Your task to perform on an android device: turn off notifications in google photos Image 0: 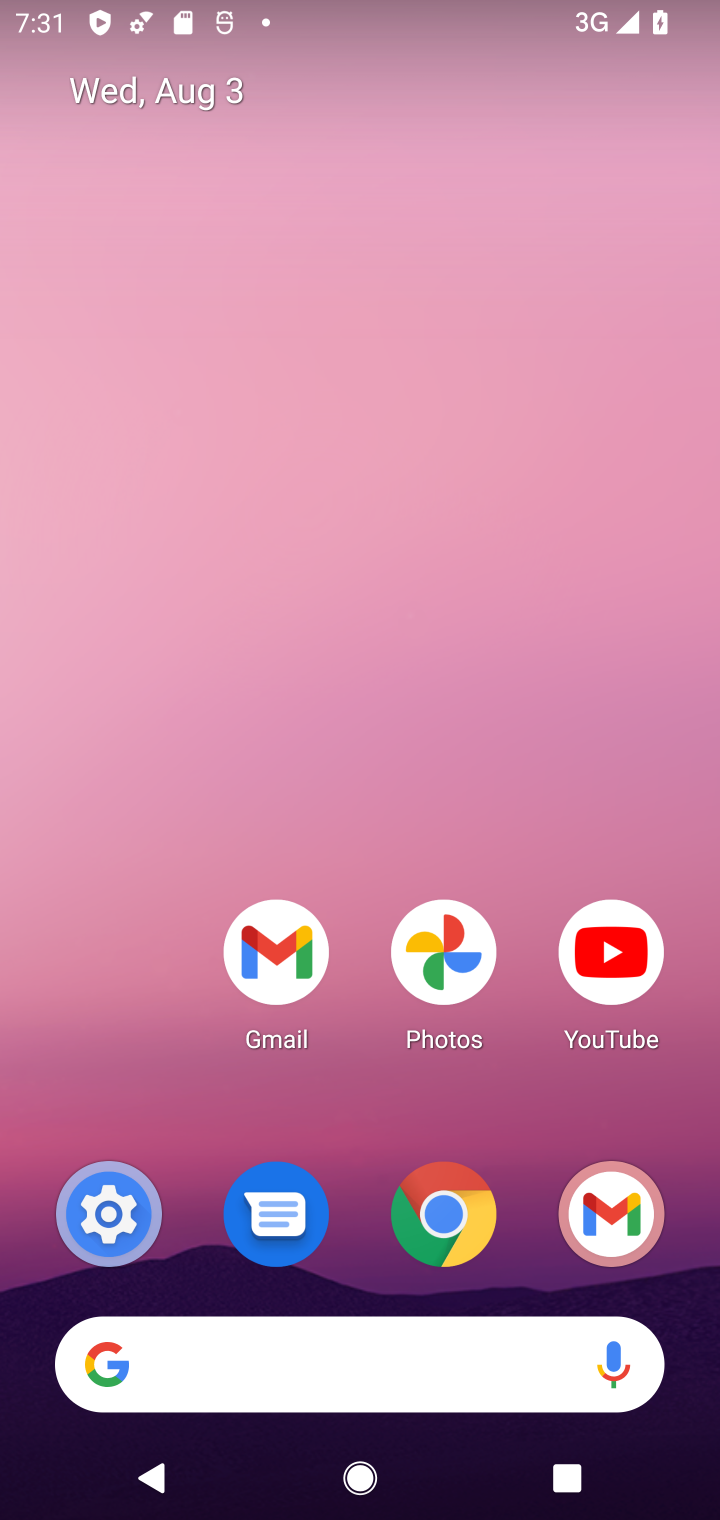
Step 0: click (454, 929)
Your task to perform on an android device: turn off notifications in google photos Image 1: 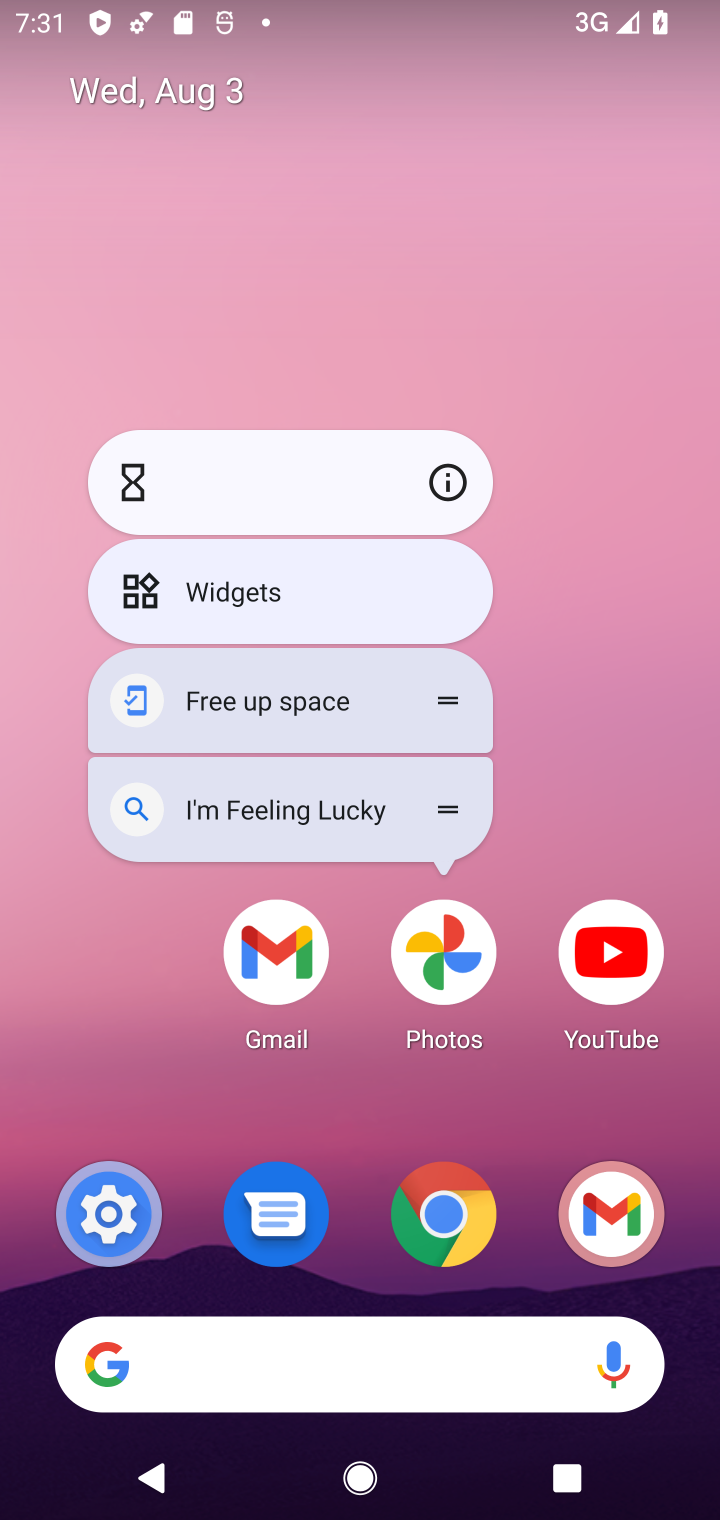
Step 1: click (451, 924)
Your task to perform on an android device: turn off notifications in google photos Image 2: 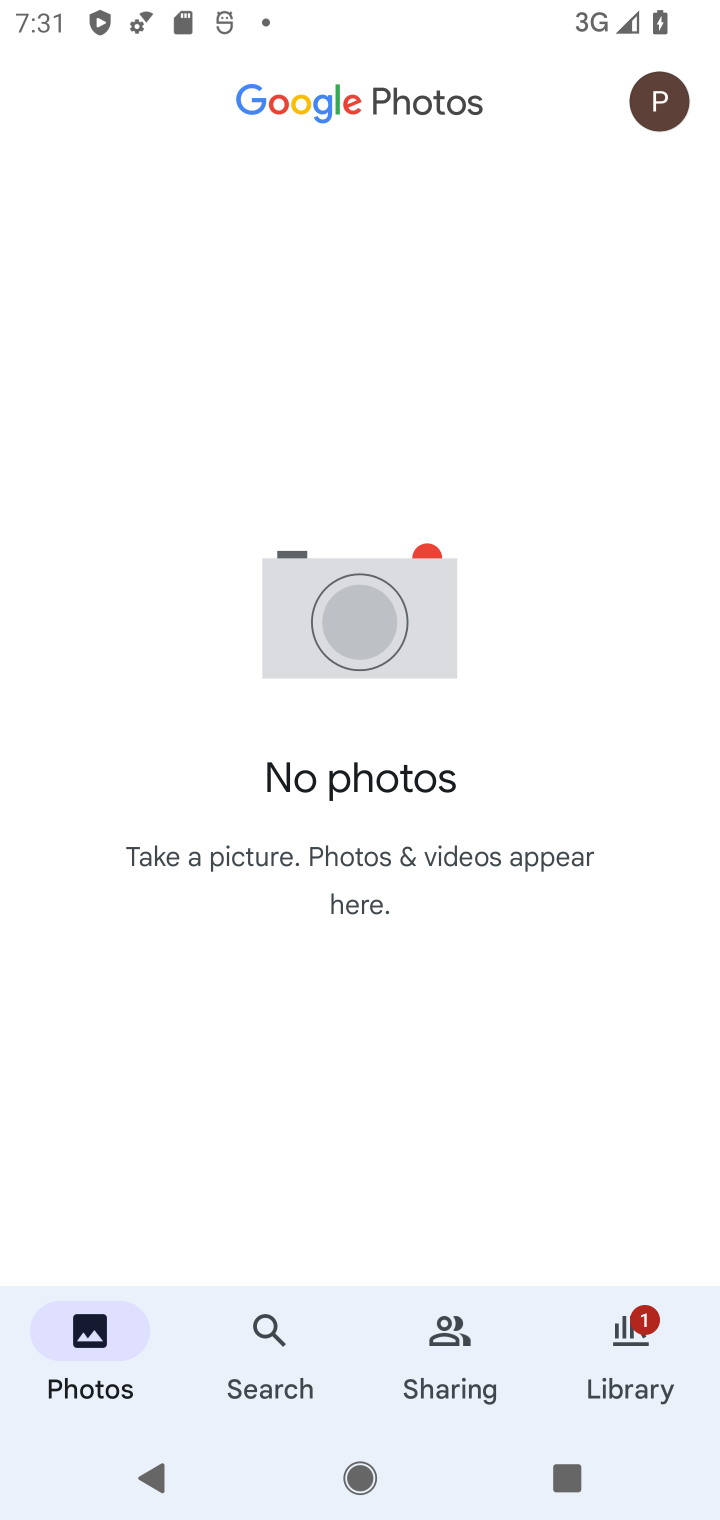
Step 2: click (666, 109)
Your task to perform on an android device: turn off notifications in google photos Image 3: 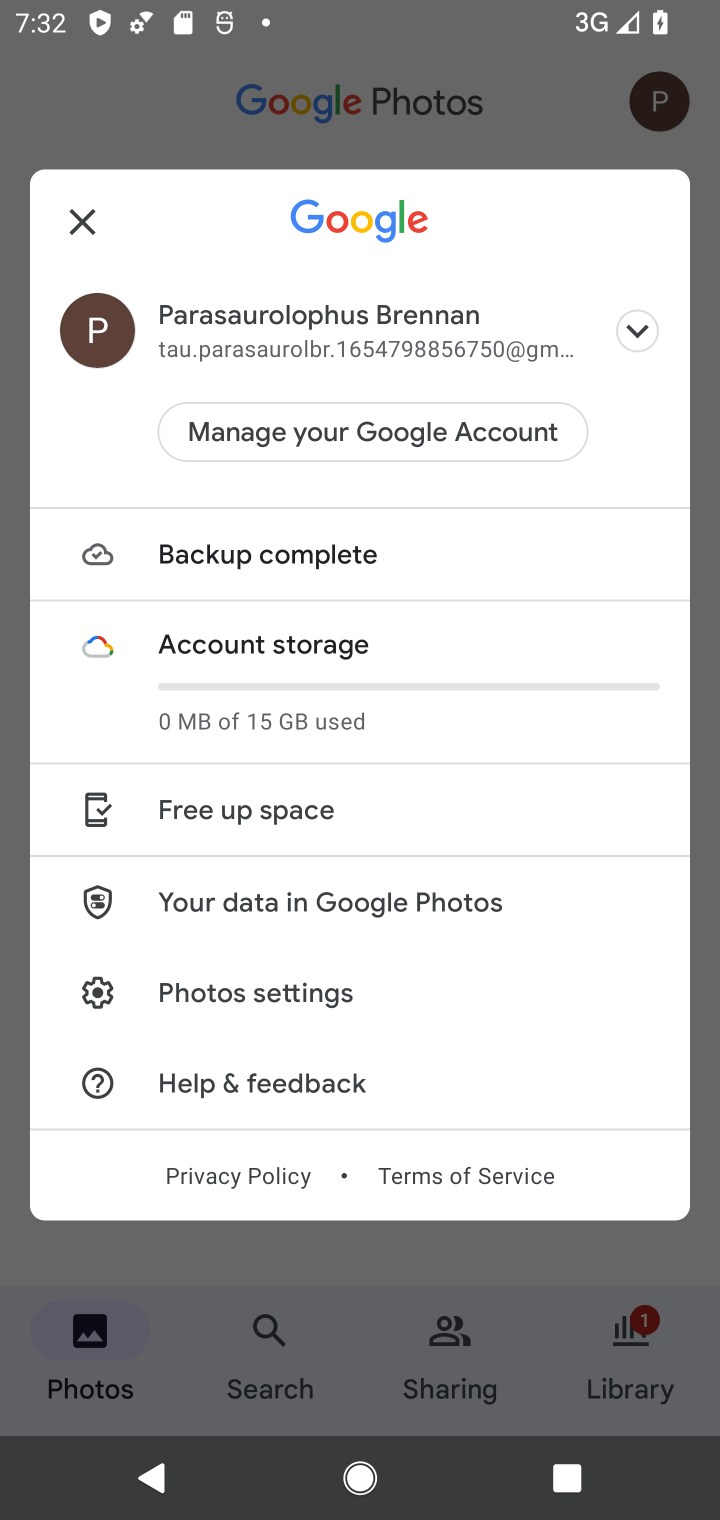
Step 3: click (222, 1019)
Your task to perform on an android device: turn off notifications in google photos Image 4: 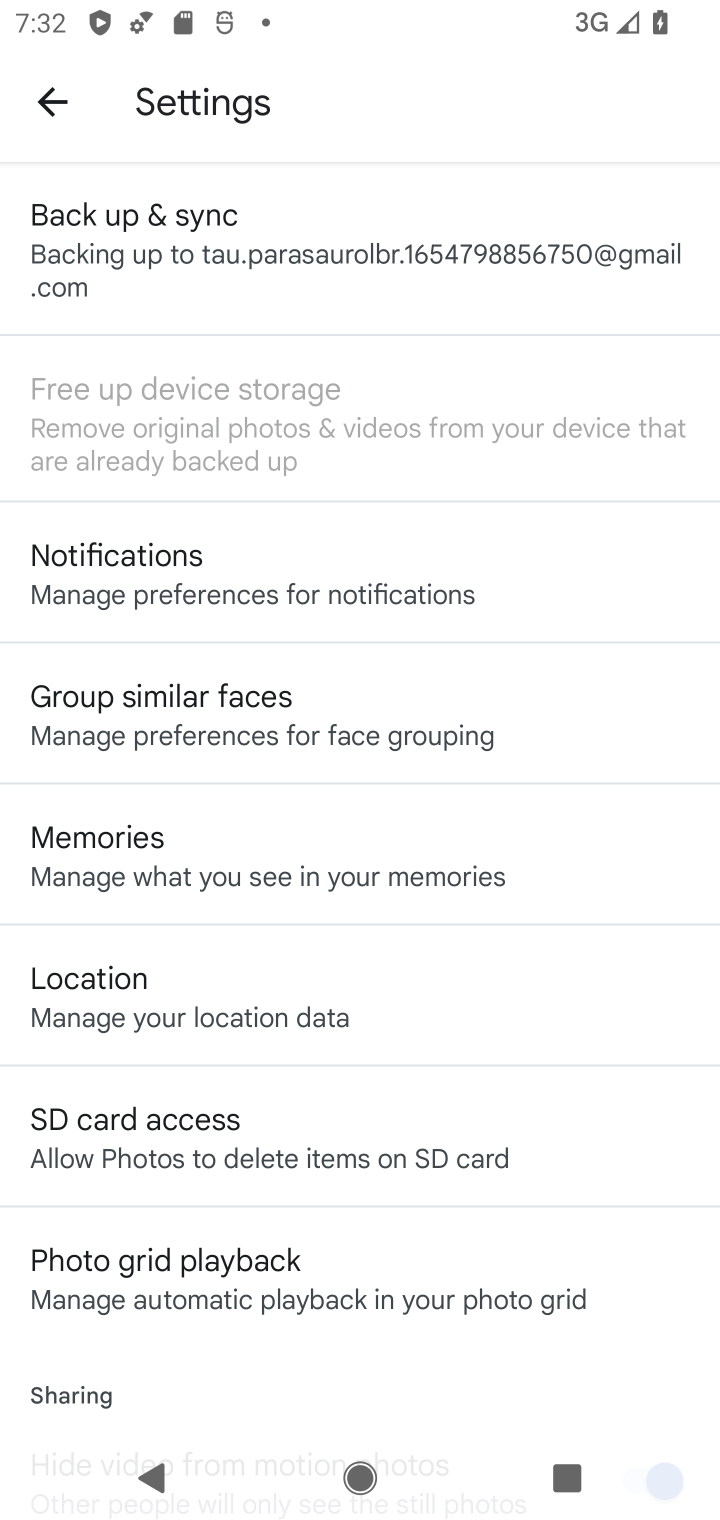
Step 4: click (263, 588)
Your task to perform on an android device: turn off notifications in google photos Image 5: 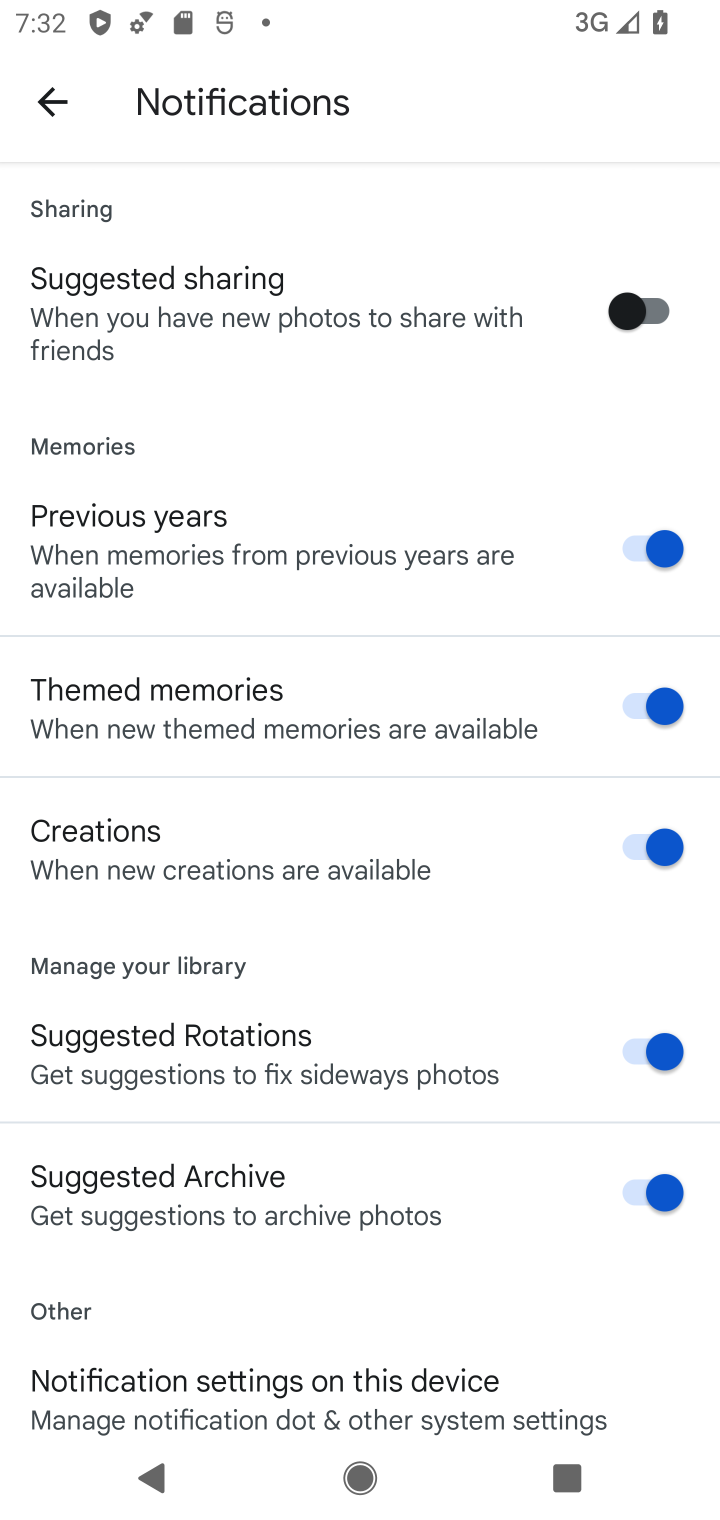
Step 5: drag from (309, 695) to (189, 17)
Your task to perform on an android device: turn off notifications in google photos Image 6: 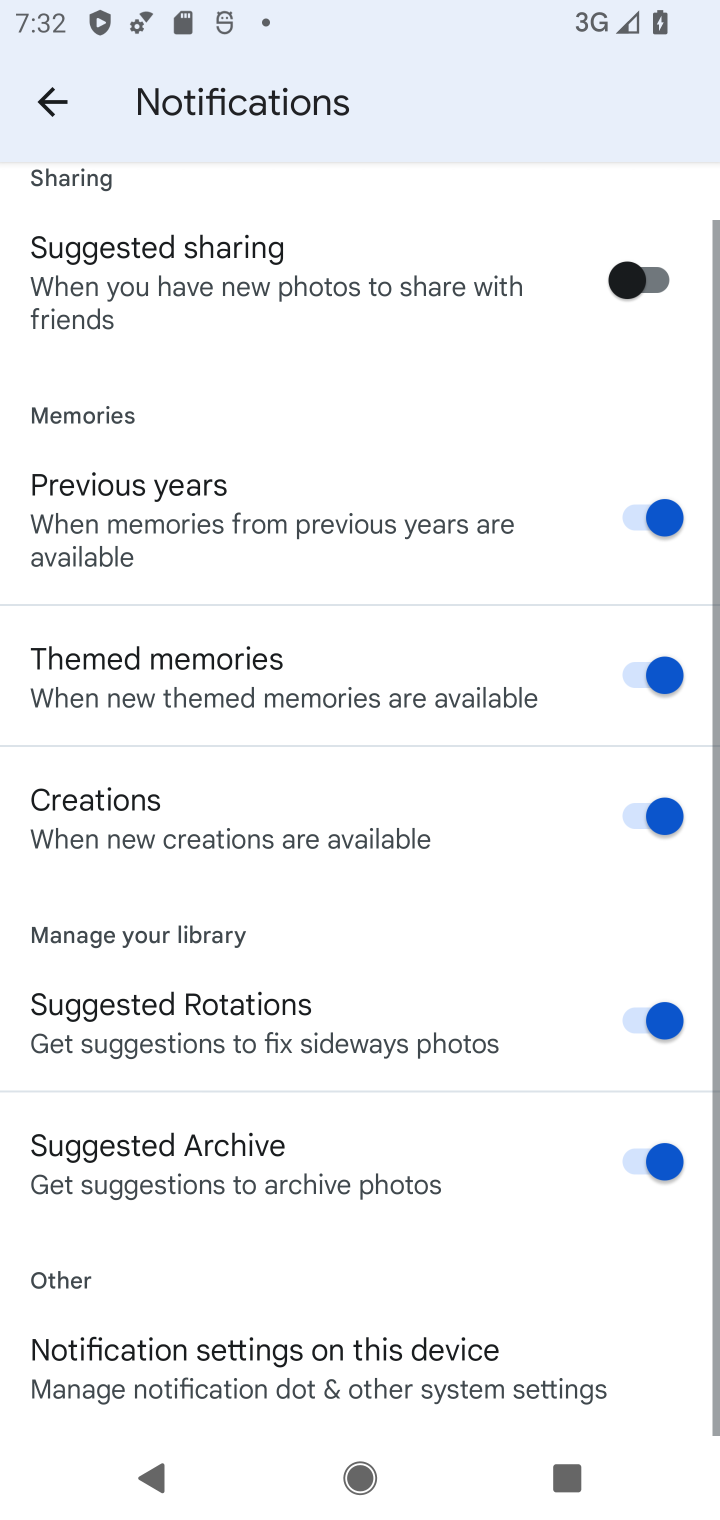
Step 6: click (190, 1339)
Your task to perform on an android device: turn off notifications in google photos Image 7: 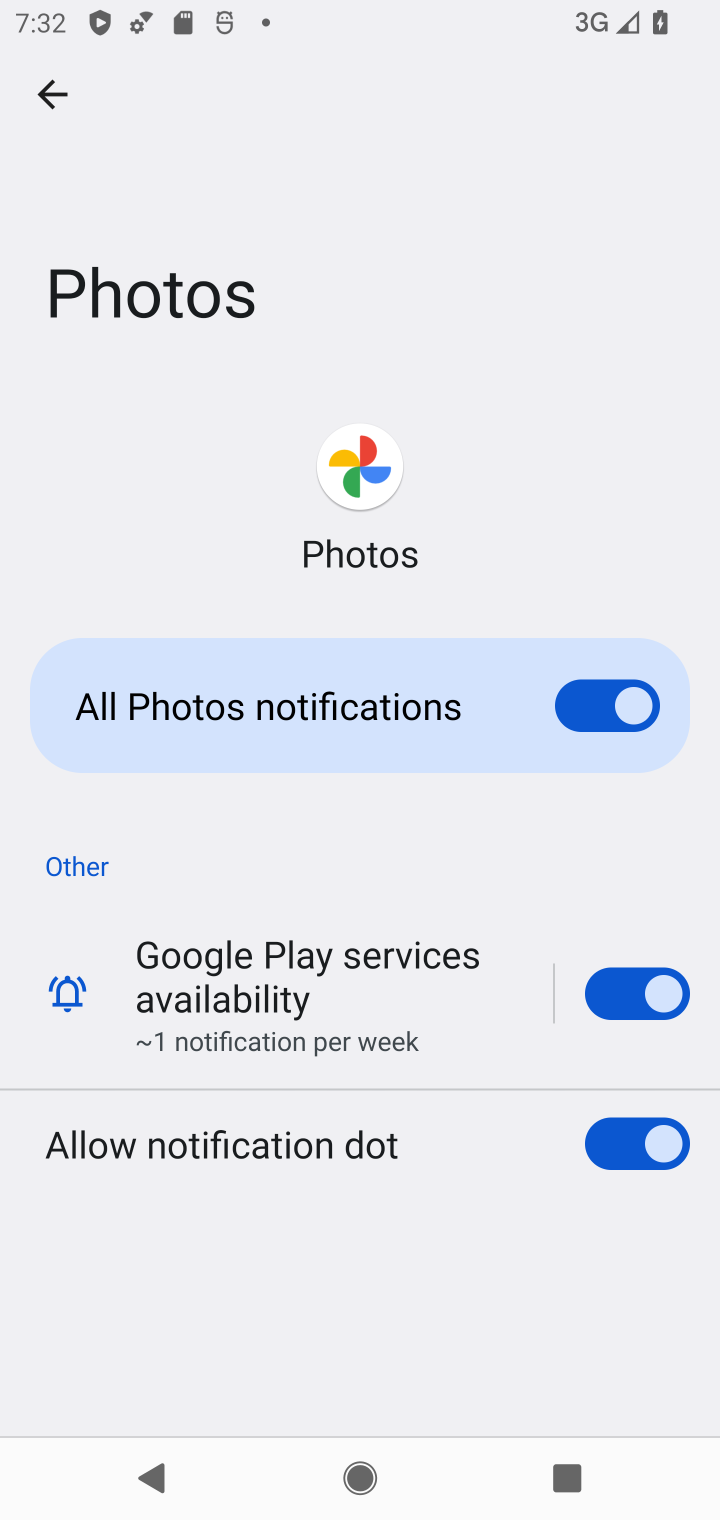
Step 7: click (624, 722)
Your task to perform on an android device: turn off notifications in google photos Image 8: 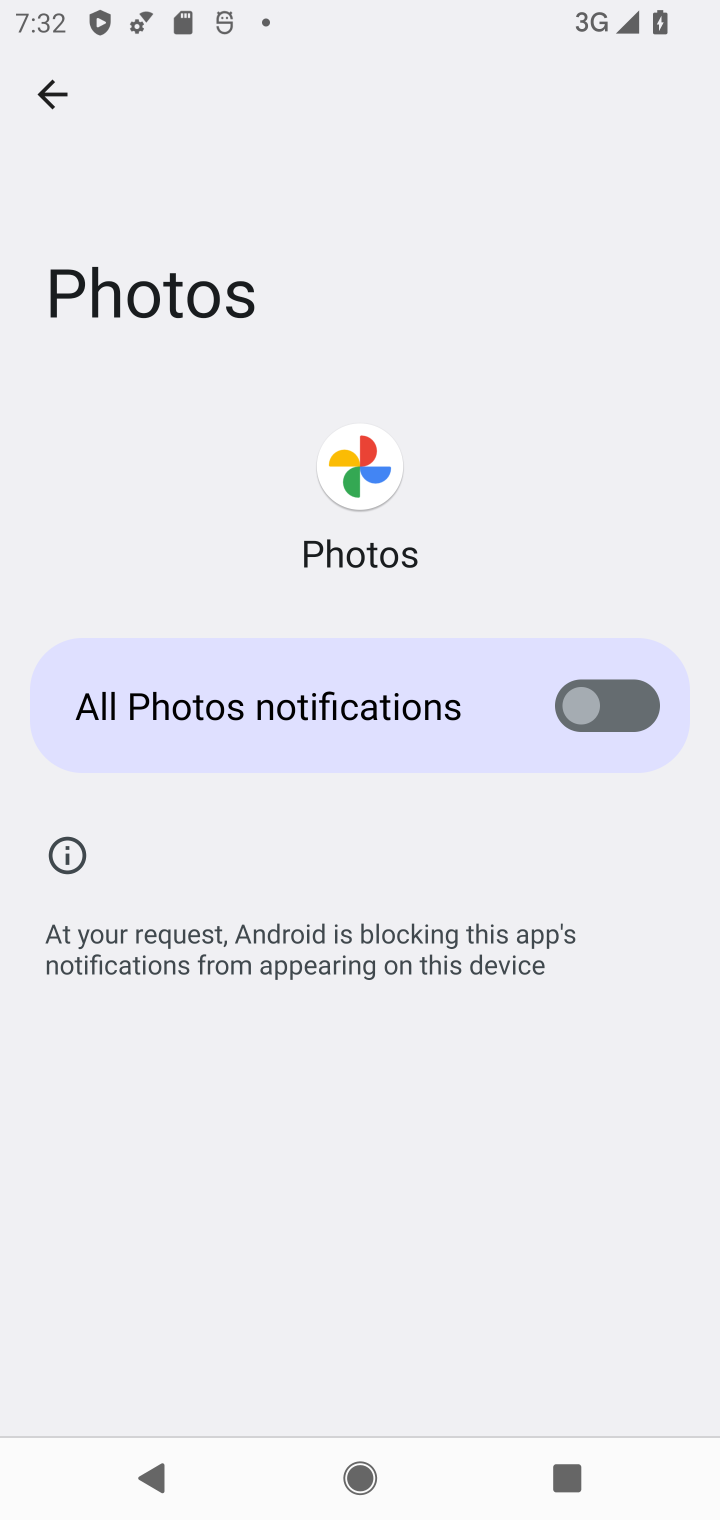
Step 8: task complete